Your task to perform on an android device: Go to Amazon Image 0: 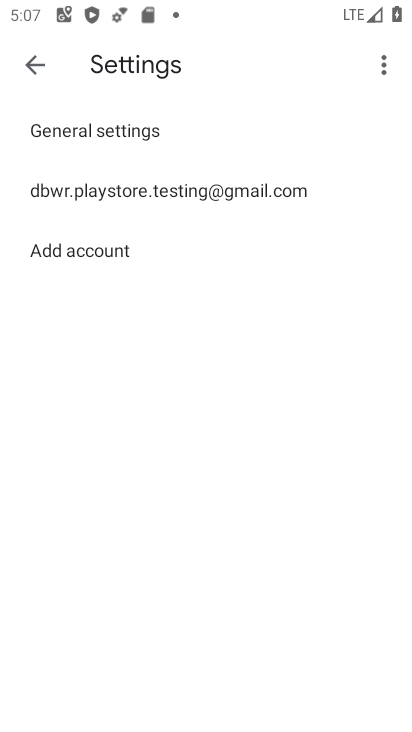
Step 0: press home button
Your task to perform on an android device: Go to Amazon Image 1: 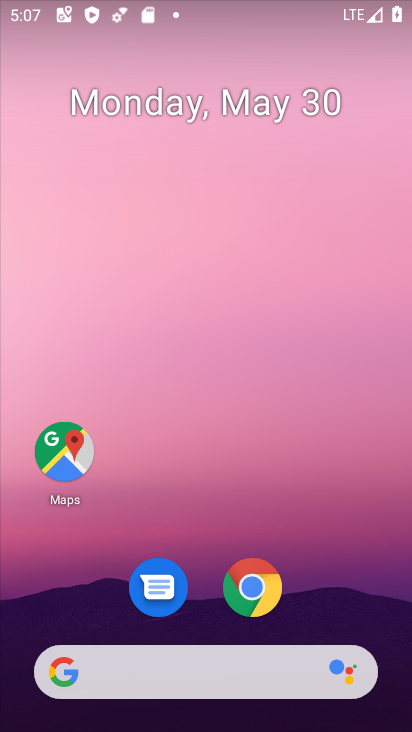
Step 1: click (251, 584)
Your task to perform on an android device: Go to Amazon Image 2: 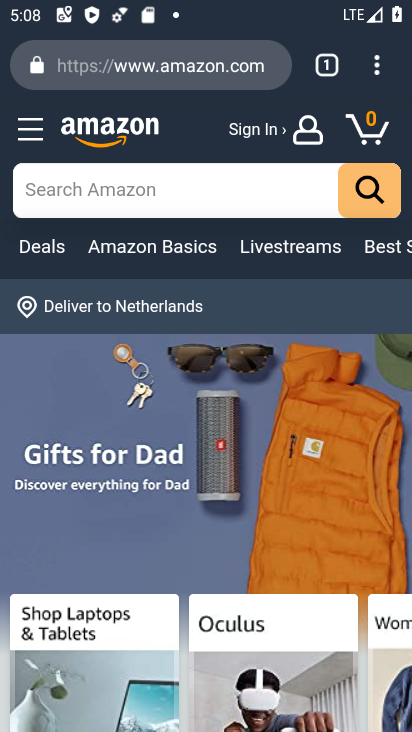
Step 2: task complete